Your task to perform on an android device: Search for jbl flip 4 on bestbuy, select the first entry, and add it to the cart. Image 0: 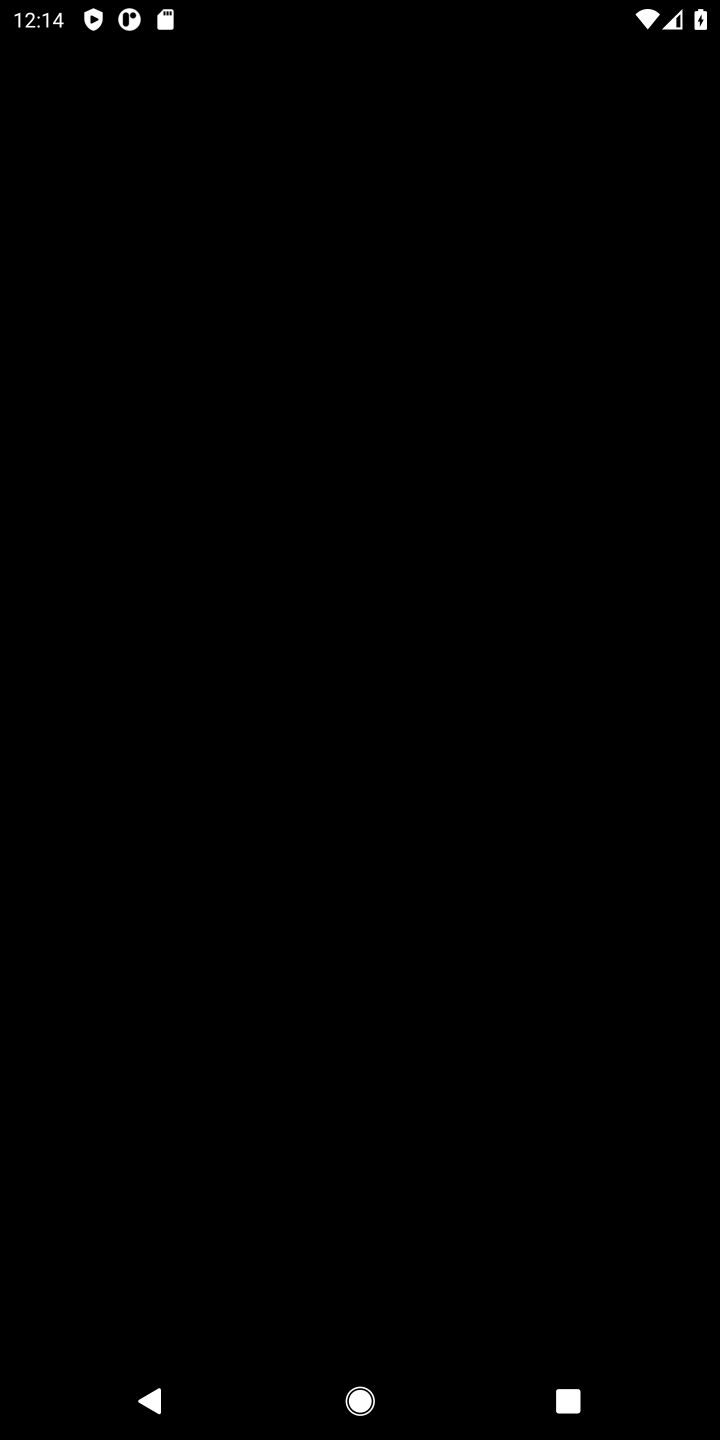
Step 0: press home button
Your task to perform on an android device: Search for jbl flip 4 on bestbuy, select the first entry, and add it to the cart. Image 1: 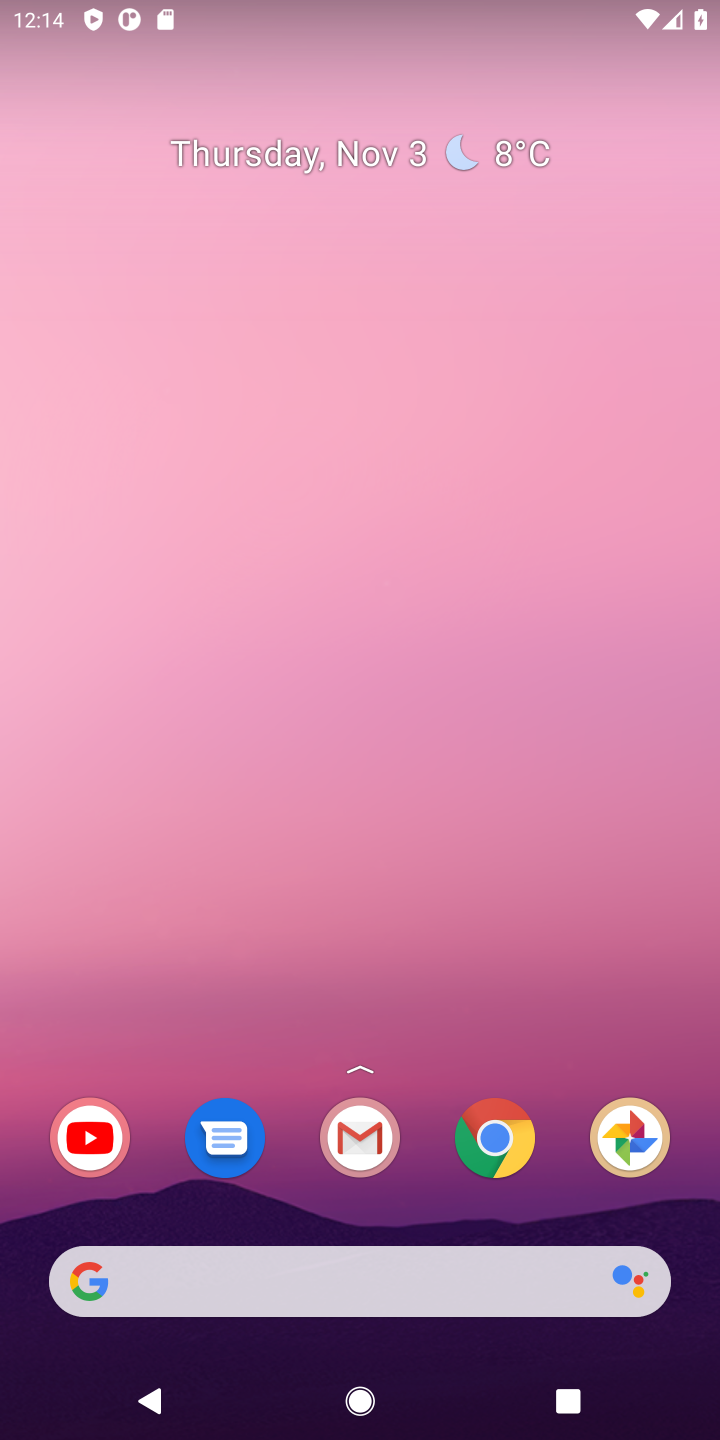
Step 1: click (505, 1152)
Your task to perform on an android device: Search for jbl flip 4 on bestbuy, select the first entry, and add it to the cart. Image 2: 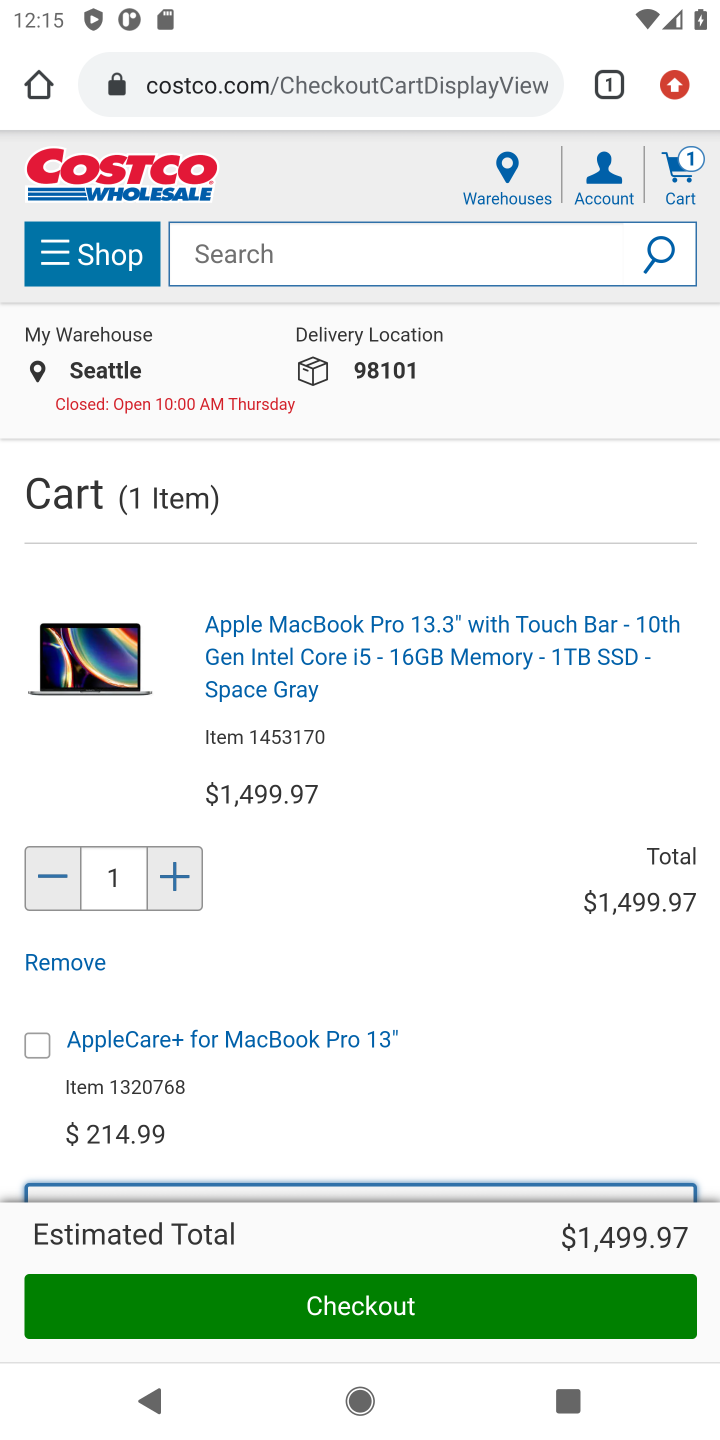
Step 2: click (166, 94)
Your task to perform on an android device: Search for jbl flip 4 on bestbuy, select the first entry, and add it to the cart. Image 3: 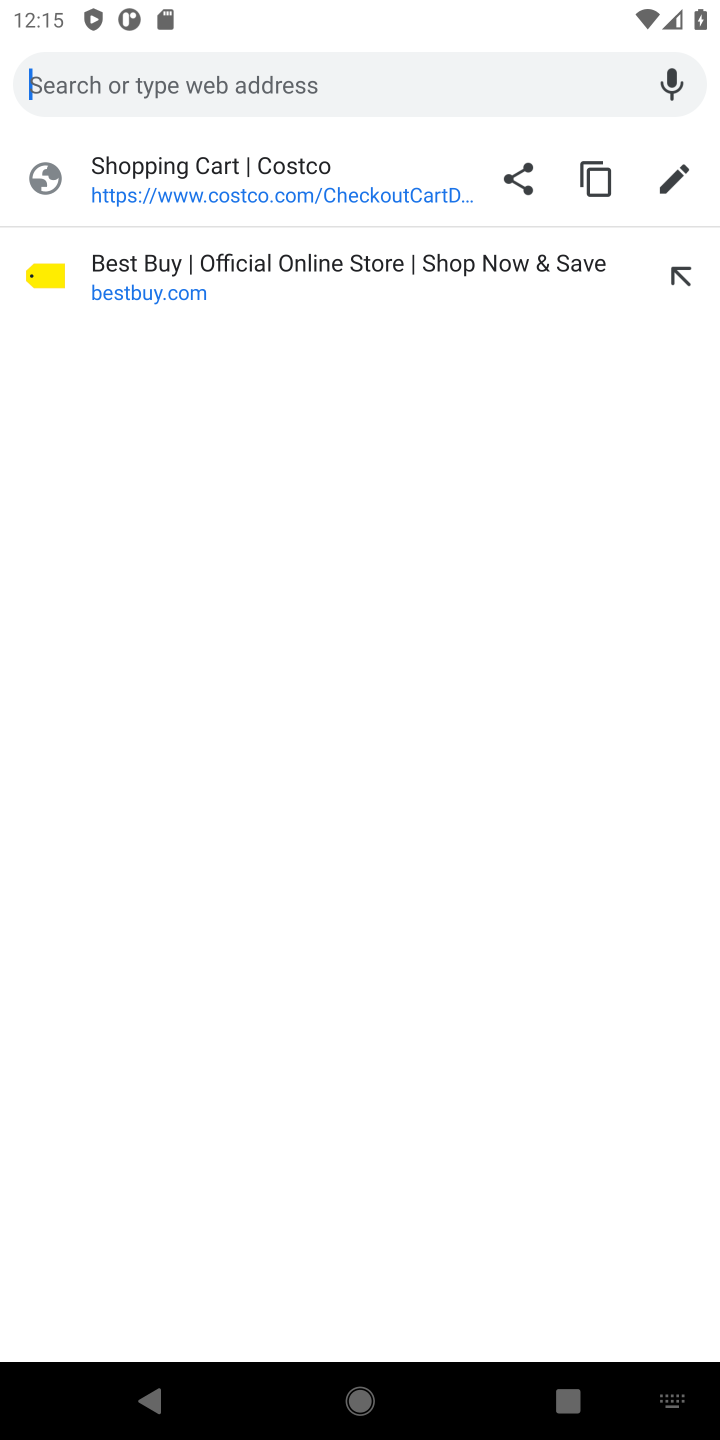
Step 3: click (173, 253)
Your task to perform on an android device: Search for jbl flip 4 on bestbuy, select the first entry, and add it to the cart. Image 4: 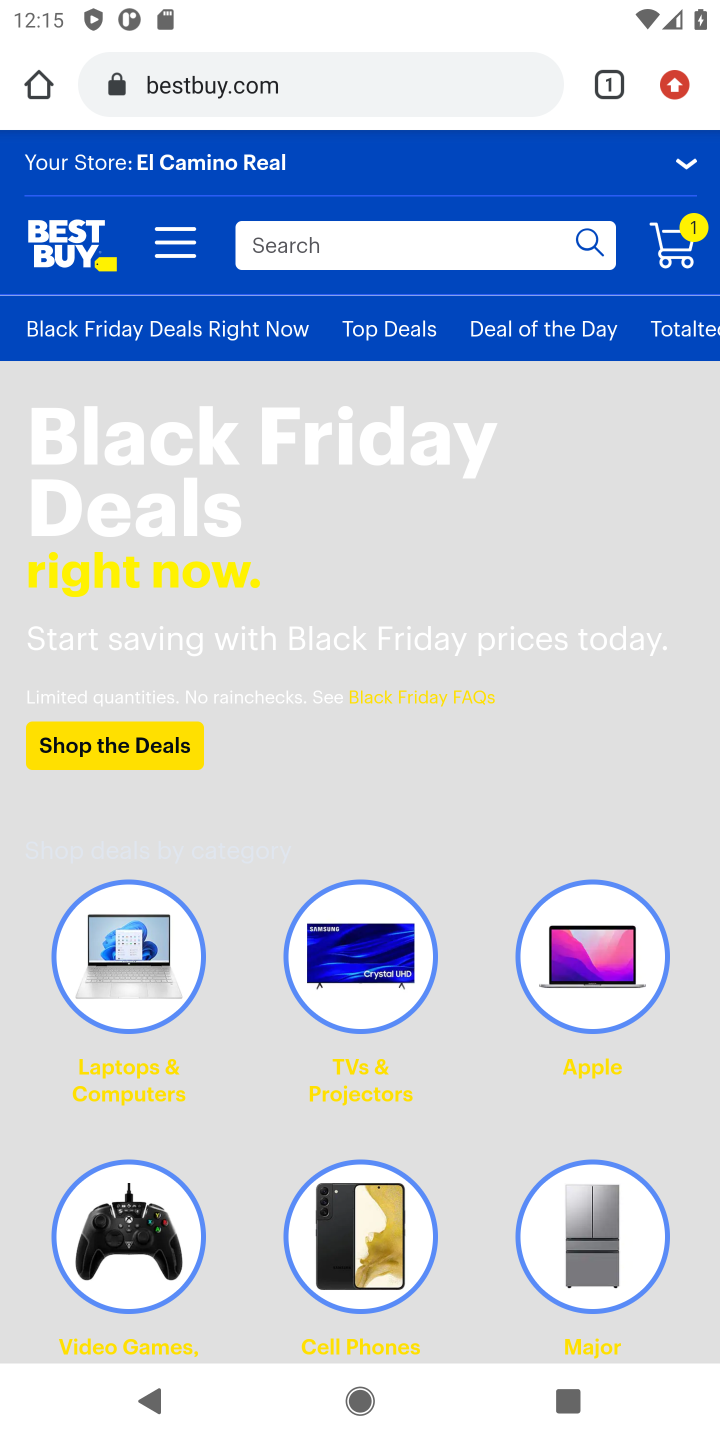
Step 4: click (284, 267)
Your task to perform on an android device: Search for jbl flip 4 on bestbuy, select the first entry, and add it to the cart. Image 5: 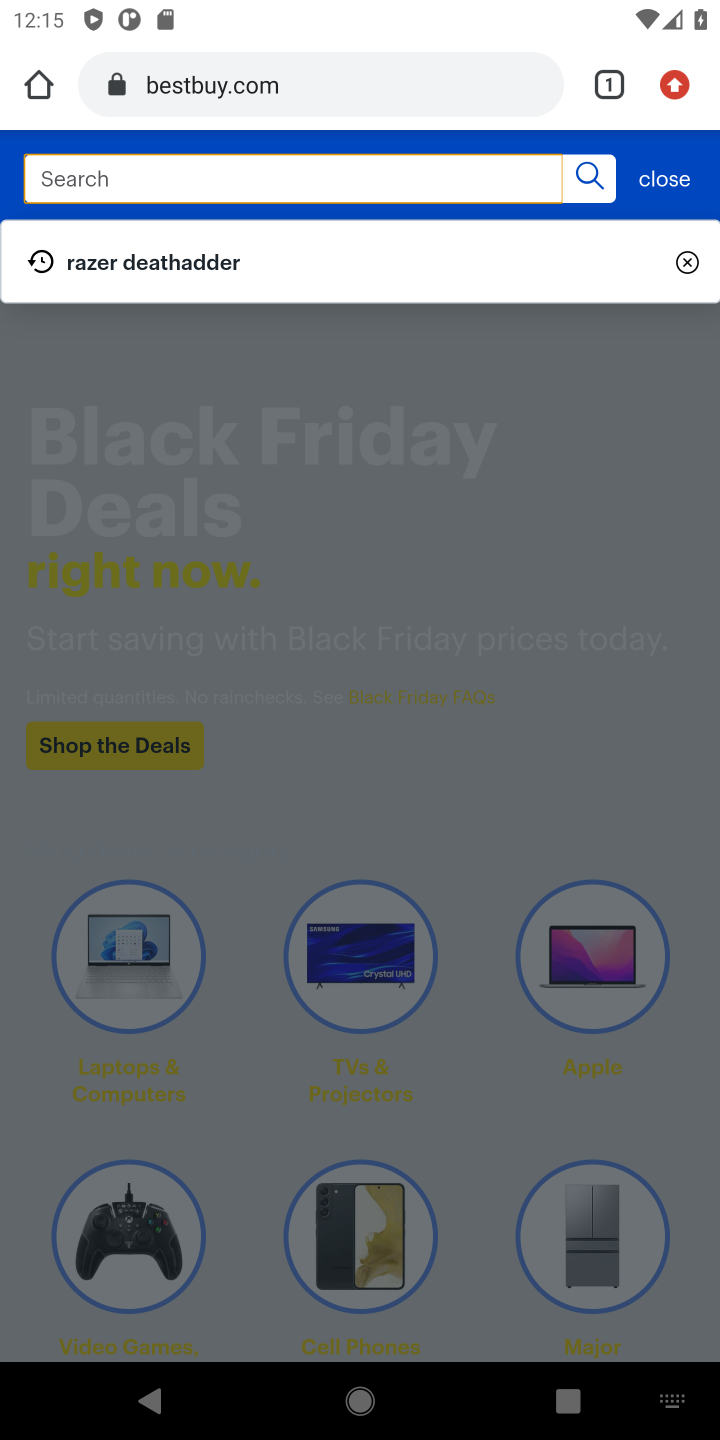
Step 5: type " jbl flip 4"
Your task to perform on an android device: Search for jbl flip 4 on bestbuy, select the first entry, and add it to the cart. Image 6: 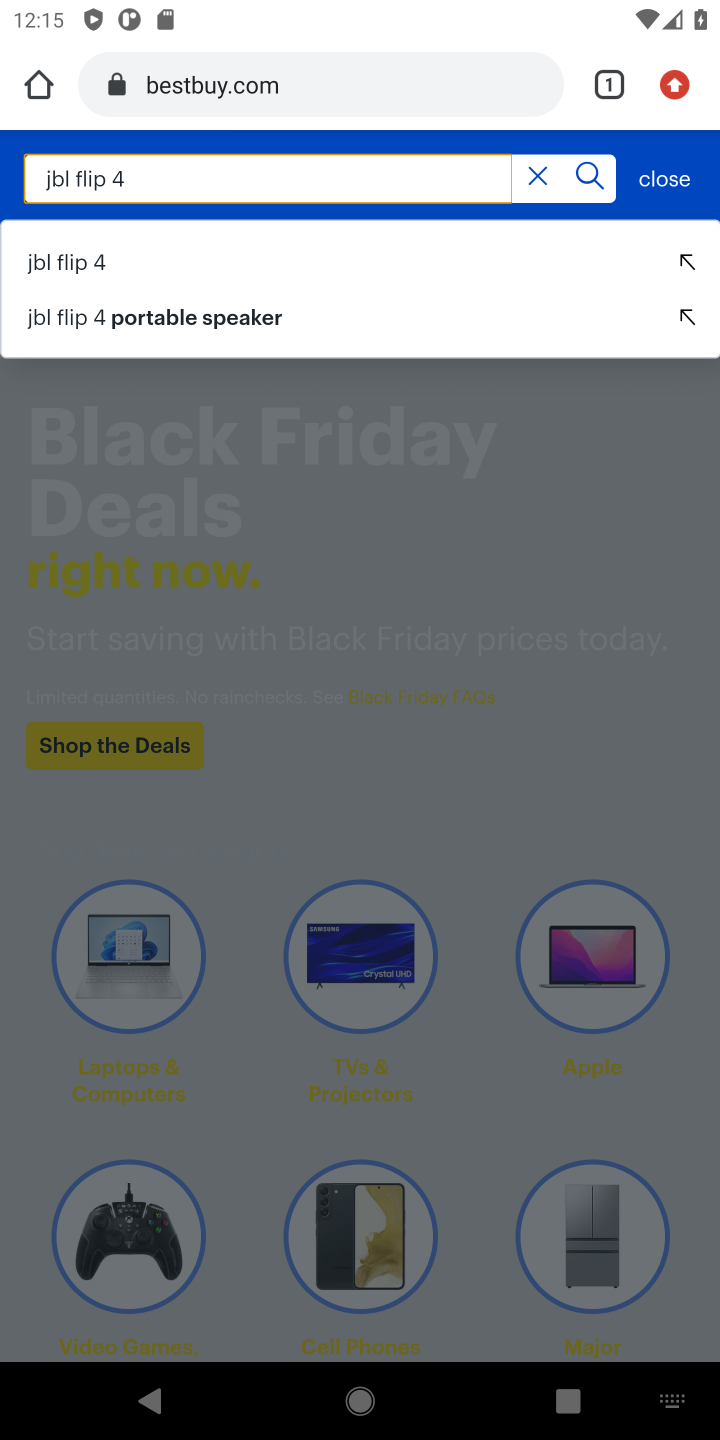
Step 6: click (592, 171)
Your task to perform on an android device: Search for jbl flip 4 on bestbuy, select the first entry, and add it to the cart. Image 7: 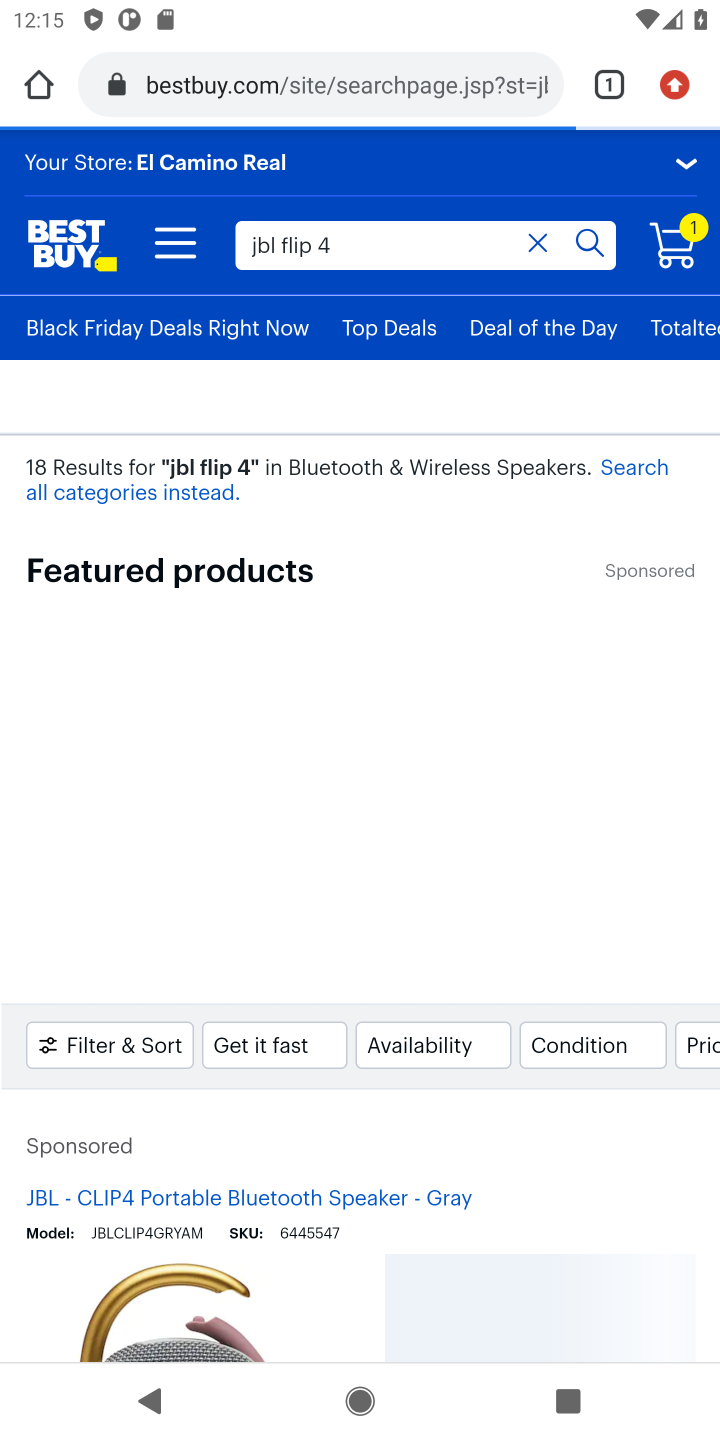
Step 7: click (592, 171)
Your task to perform on an android device: Search for jbl flip 4 on bestbuy, select the first entry, and add it to the cart. Image 8: 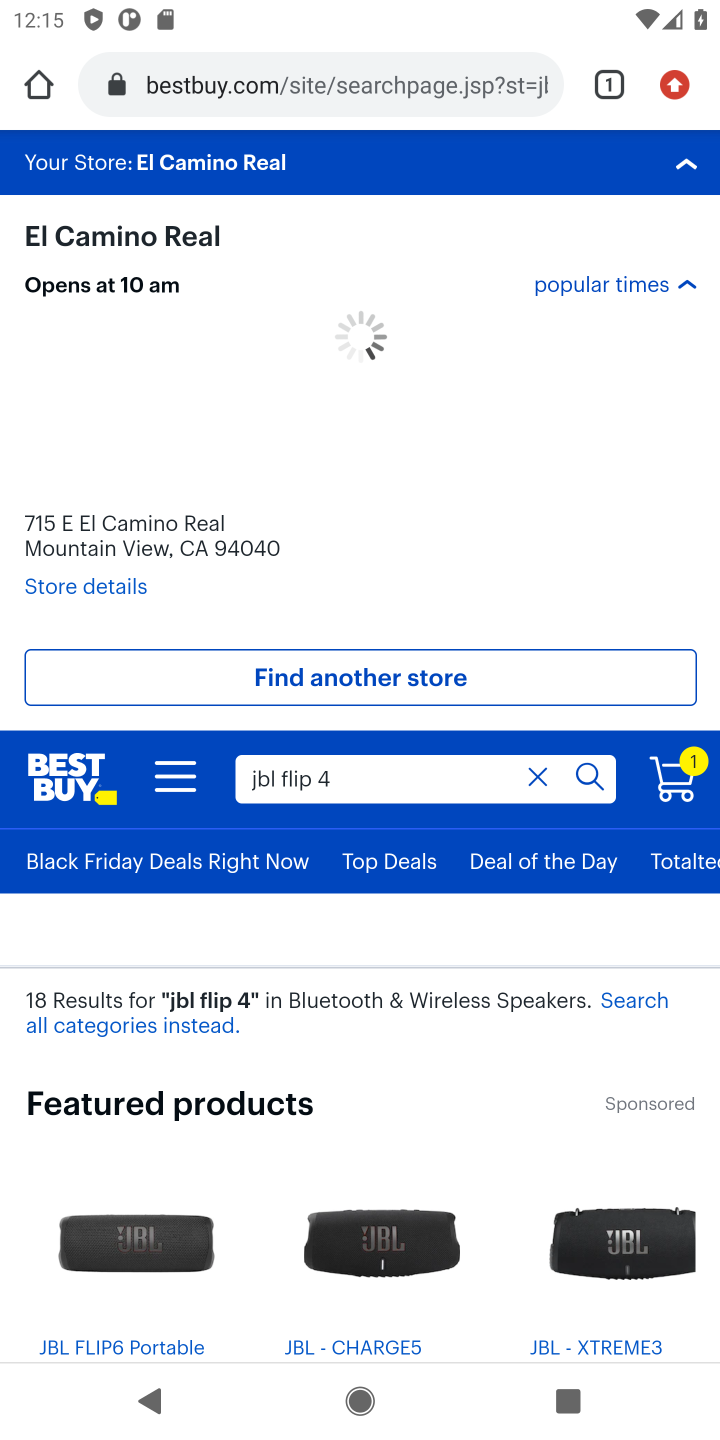
Step 8: task complete